Your task to perform on an android device: Add logitech g502 to the cart on target.com Image 0: 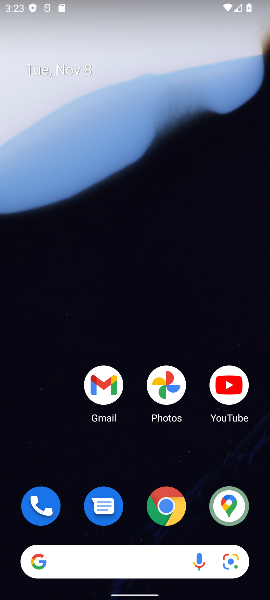
Step 0: drag from (167, 446) to (205, 85)
Your task to perform on an android device: Add logitech g502 to the cart on target.com Image 1: 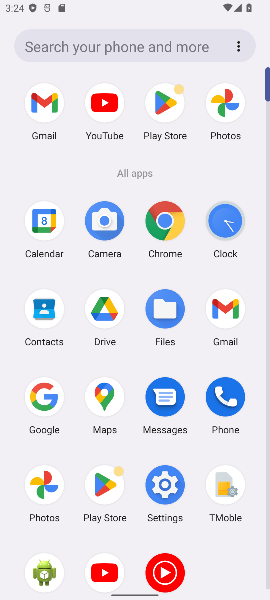
Step 1: click (57, 387)
Your task to perform on an android device: Add logitech g502 to the cart on target.com Image 2: 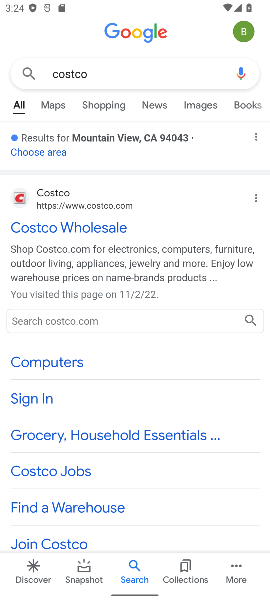
Step 2: click (200, 74)
Your task to perform on an android device: Add logitech g502 to the cart on target.com Image 3: 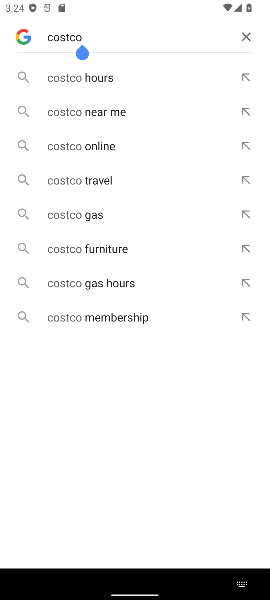
Step 3: click (250, 38)
Your task to perform on an android device: Add logitech g502 to the cart on target.com Image 4: 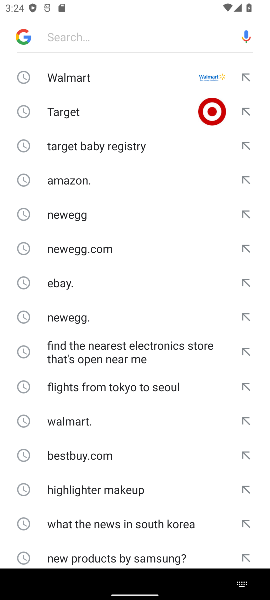
Step 4: click (131, 108)
Your task to perform on an android device: Add logitech g502 to the cart on target.com Image 5: 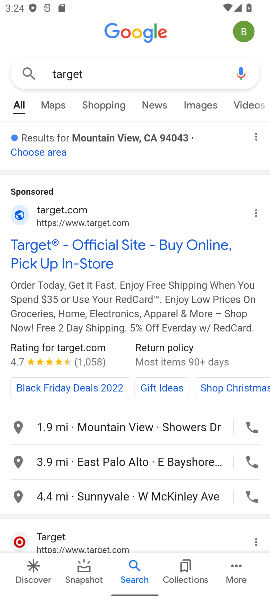
Step 5: click (110, 247)
Your task to perform on an android device: Add logitech g502 to the cart on target.com Image 6: 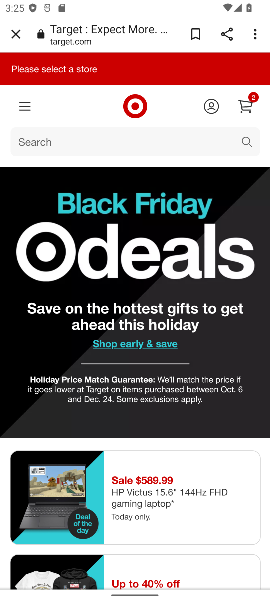
Step 6: click (130, 145)
Your task to perform on an android device: Add logitech g502 to the cart on target.com Image 7: 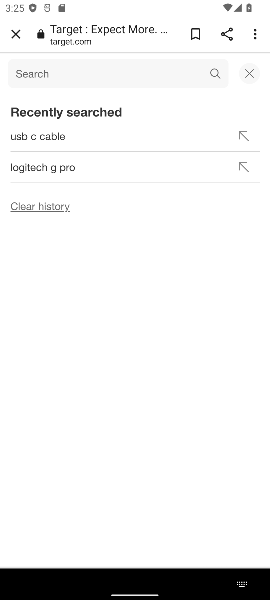
Step 7: type "logitech g502"
Your task to perform on an android device: Add logitech g502 to the cart on target.com Image 8: 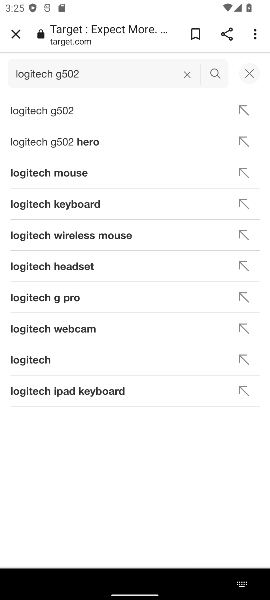
Step 8: click (65, 103)
Your task to perform on an android device: Add logitech g502 to the cart on target.com Image 9: 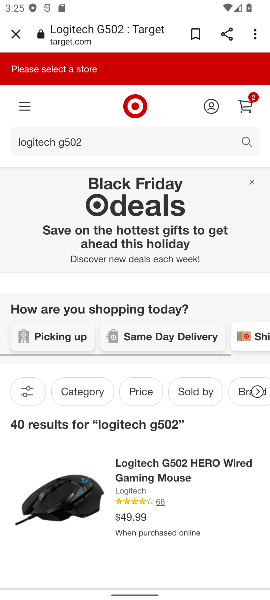
Step 9: click (144, 471)
Your task to perform on an android device: Add logitech g502 to the cart on target.com Image 10: 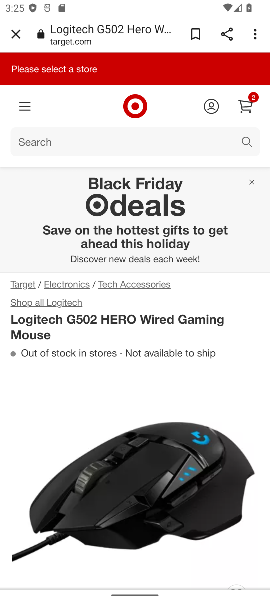
Step 10: drag from (157, 462) to (194, 226)
Your task to perform on an android device: Add logitech g502 to the cart on target.com Image 11: 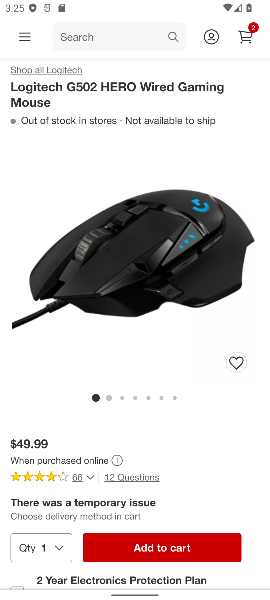
Step 11: click (194, 547)
Your task to perform on an android device: Add logitech g502 to the cart on target.com Image 12: 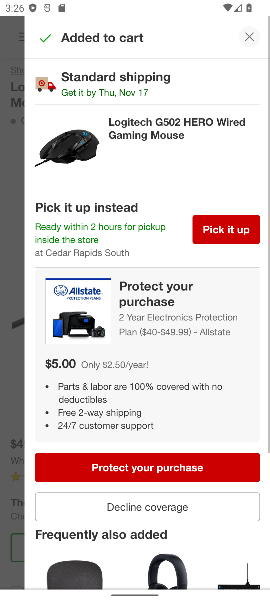
Step 12: drag from (207, 419) to (174, 219)
Your task to perform on an android device: Add logitech g502 to the cart on target.com Image 13: 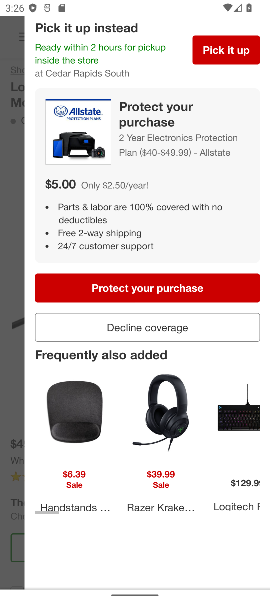
Step 13: click (171, 328)
Your task to perform on an android device: Add logitech g502 to the cart on target.com Image 14: 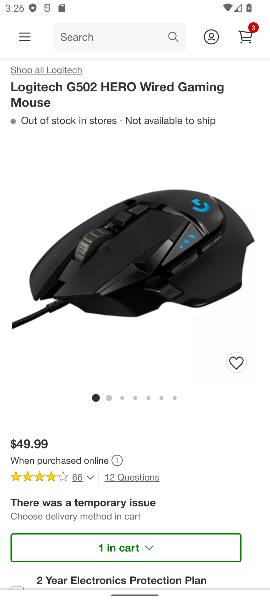
Step 14: click (247, 40)
Your task to perform on an android device: Add logitech g502 to the cart on target.com Image 15: 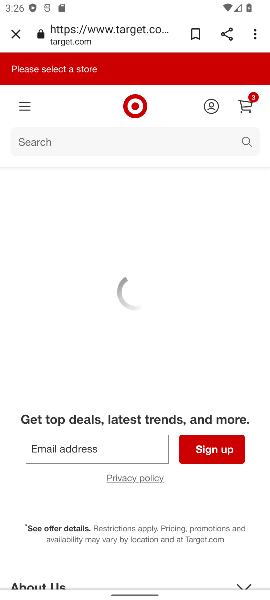
Step 15: task complete